Your task to perform on an android device: turn off translation in the chrome app Image 0: 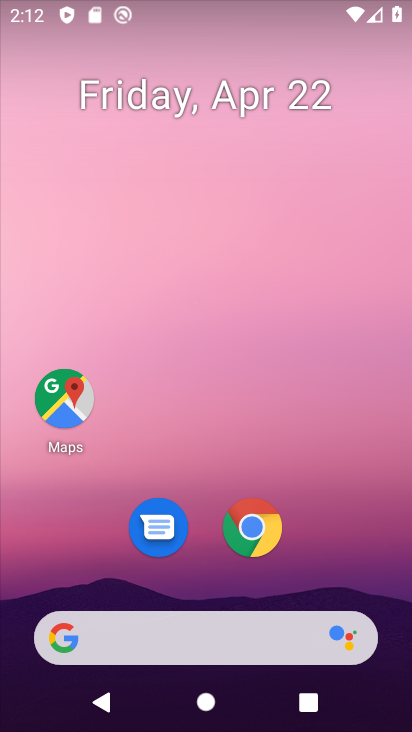
Step 0: drag from (397, 611) to (316, 81)
Your task to perform on an android device: turn off translation in the chrome app Image 1: 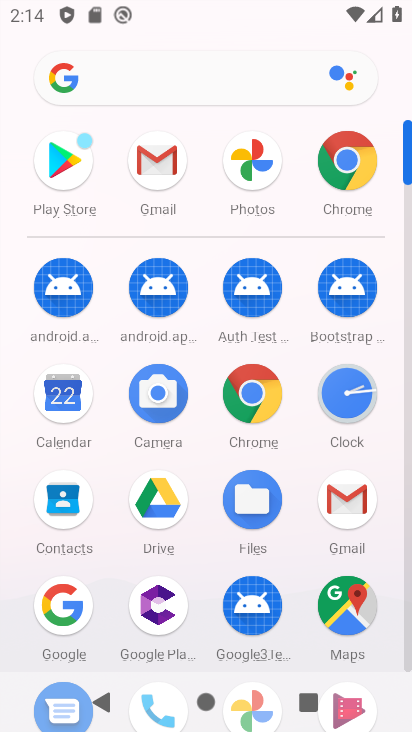
Step 1: click (240, 387)
Your task to perform on an android device: turn off translation in the chrome app Image 2: 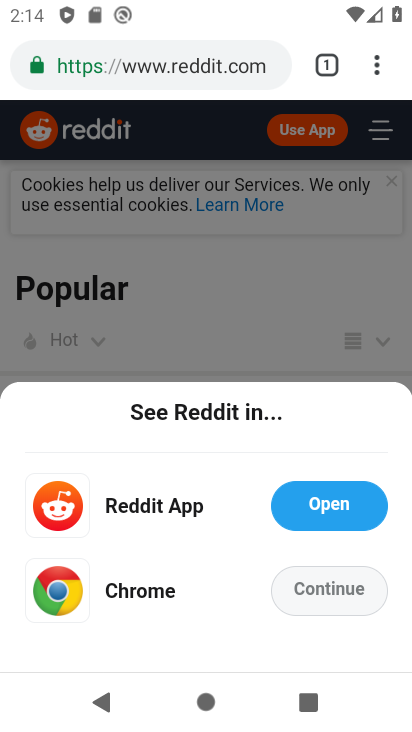
Step 2: press back button
Your task to perform on an android device: turn off translation in the chrome app Image 3: 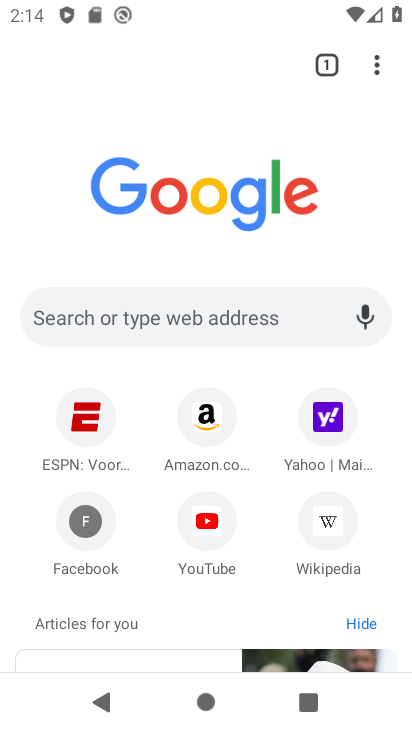
Step 3: click (377, 61)
Your task to perform on an android device: turn off translation in the chrome app Image 4: 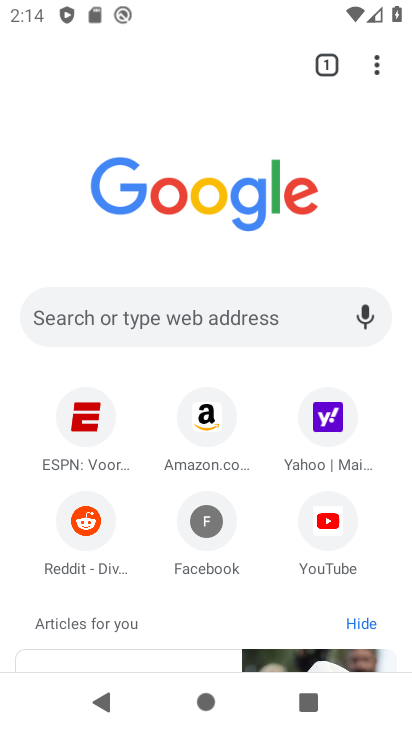
Step 4: click (369, 64)
Your task to perform on an android device: turn off translation in the chrome app Image 5: 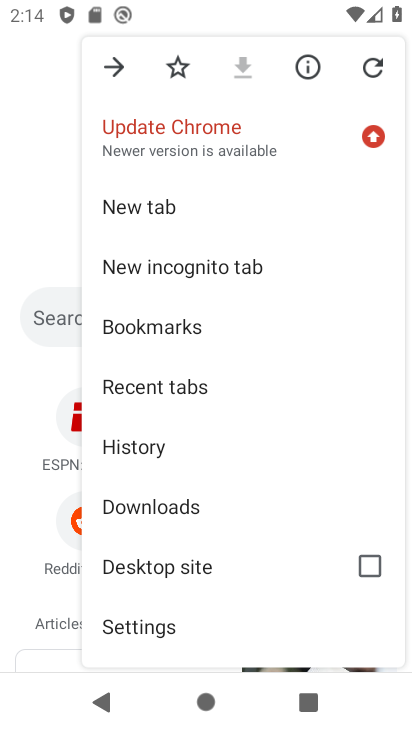
Step 5: click (203, 628)
Your task to perform on an android device: turn off translation in the chrome app Image 6: 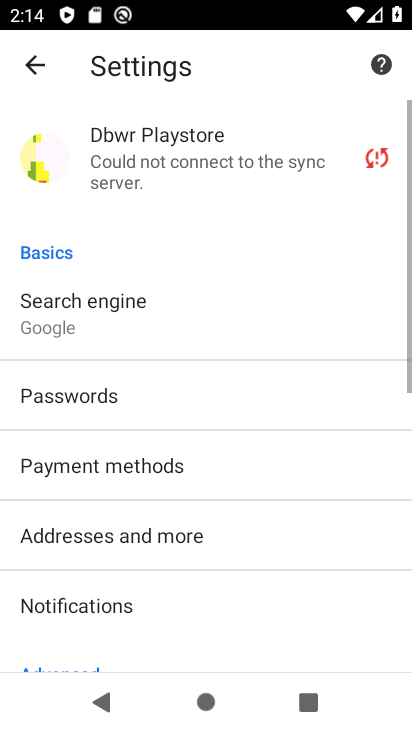
Step 6: drag from (203, 628) to (238, 278)
Your task to perform on an android device: turn off translation in the chrome app Image 7: 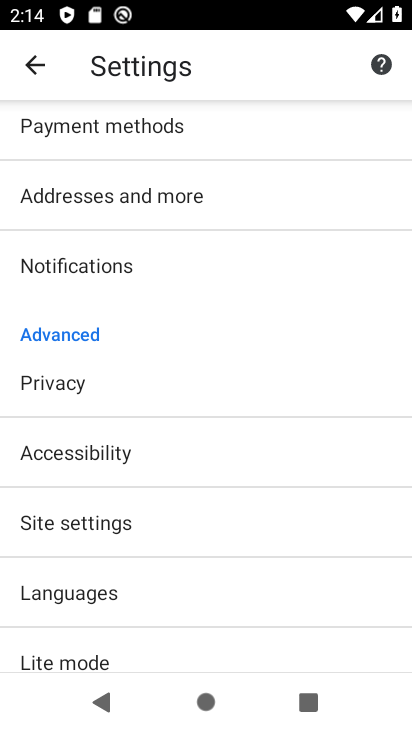
Step 7: click (144, 604)
Your task to perform on an android device: turn off translation in the chrome app Image 8: 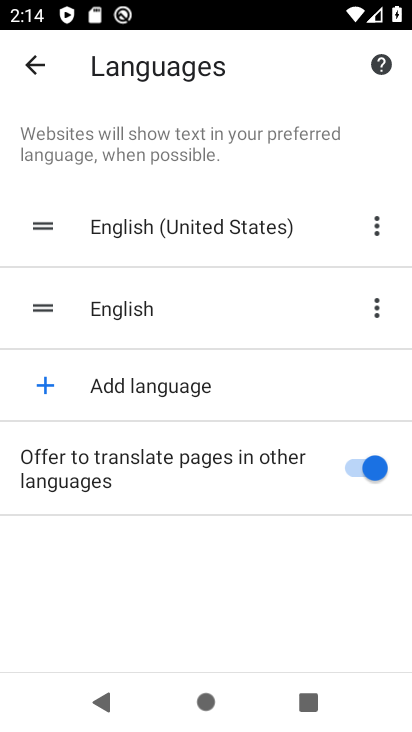
Step 8: click (329, 463)
Your task to perform on an android device: turn off translation in the chrome app Image 9: 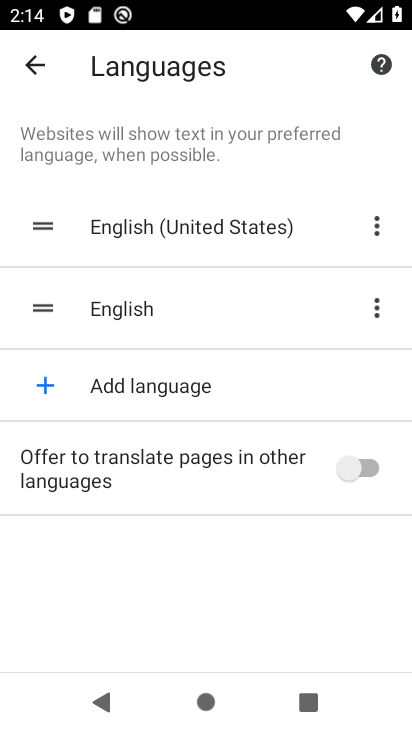
Step 9: task complete